Your task to perform on an android device: see creations saved in the google photos Image 0: 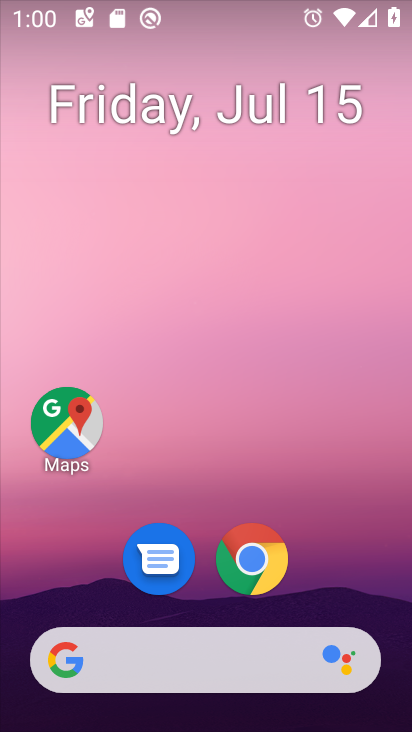
Step 0: drag from (379, 581) to (368, 192)
Your task to perform on an android device: see creations saved in the google photos Image 1: 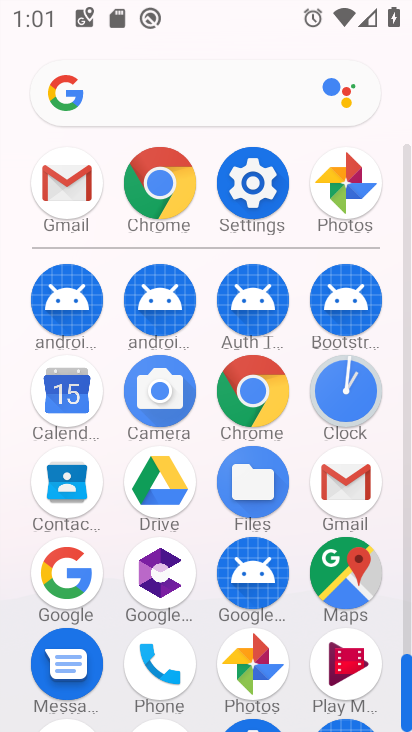
Step 1: click (349, 189)
Your task to perform on an android device: see creations saved in the google photos Image 2: 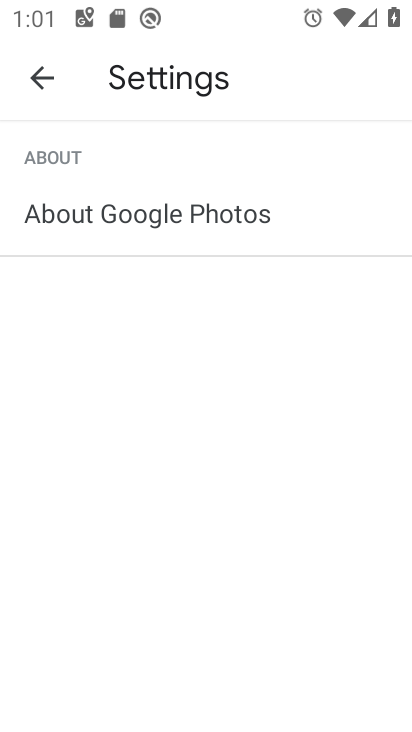
Step 2: press back button
Your task to perform on an android device: see creations saved in the google photos Image 3: 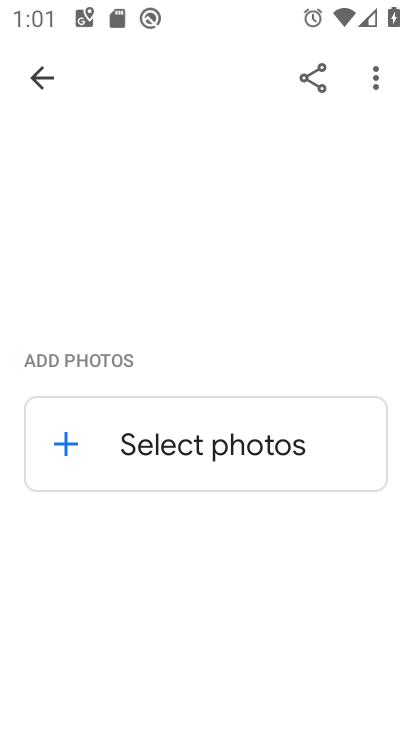
Step 3: press back button
Your task to perform on an android device: see creations saved in the google photos Image 4: 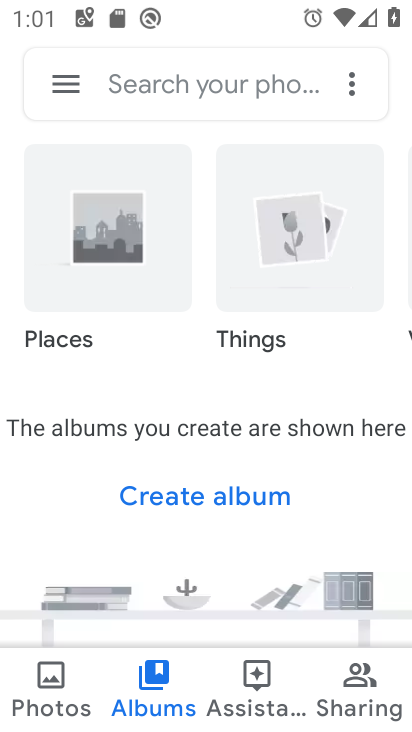
Step 4: click (210, 92)
Your task to perform on an android device: see creations saved in the google photos Image 5: 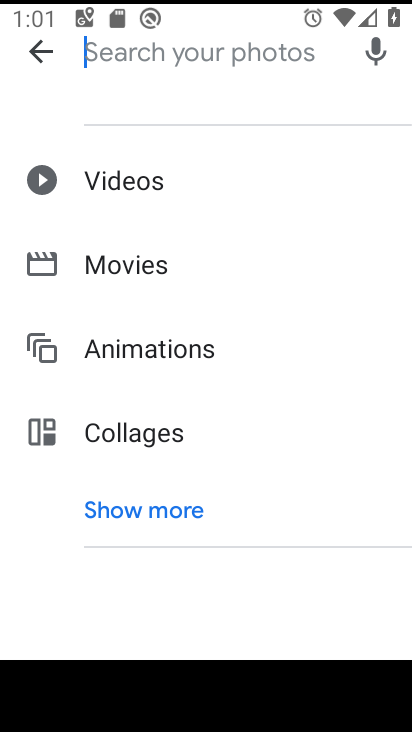
Step 5: click (195, 505)
Your task to perform on an android device: see creations saved in the google photos Image 6: 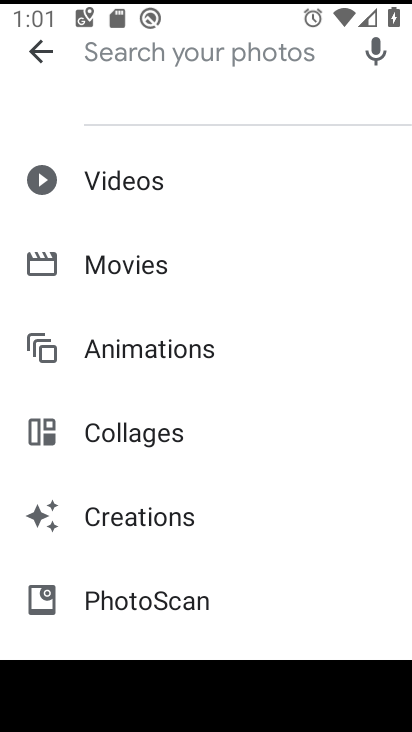
Step 6: drag from (276, 521) to (295, 381)
Your task to perform on an android device: see creations saved in the google photos Image 7: 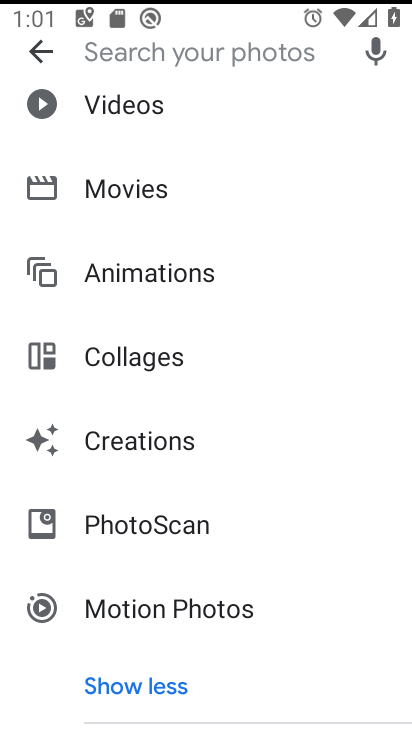
Step 7: click (260, 437)
Your task to perform on an android device: see creations saved in the google photos Image 8: 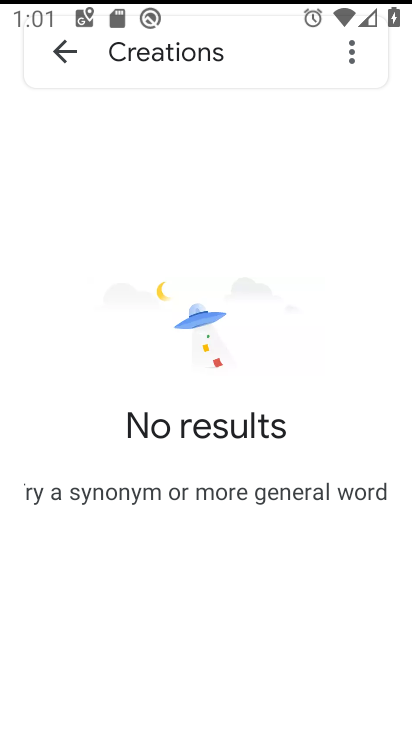
Step 8: task complete